Your task to perform on an android device: Install the Yahoo app Image 0: 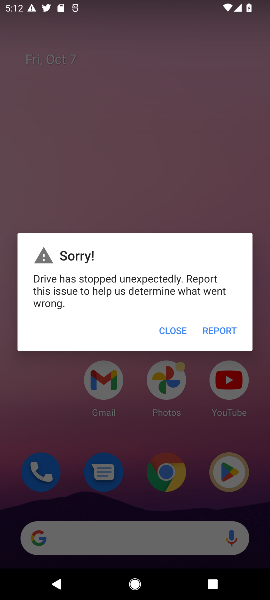
Step 0: click (170, 327)
Your task to perform on an android device: Install the Yahoo app Image 1: 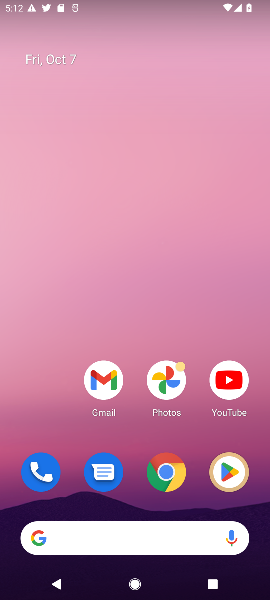
Step 1: click (226, 475)
Your task to perform on an android device: Install the Yahoo app Image 2: 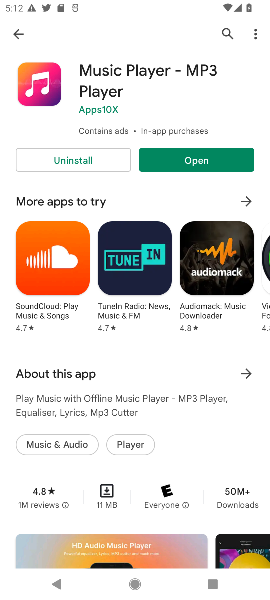
Step 2: click (18, 32)
Your task to perform on an android device: Install the Yahoo app Image 3: 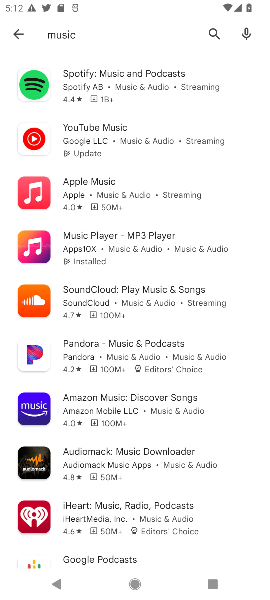
Step 3: click (213, 33)
Your task to perform on an android device: Install the Yahoo app Image 4: 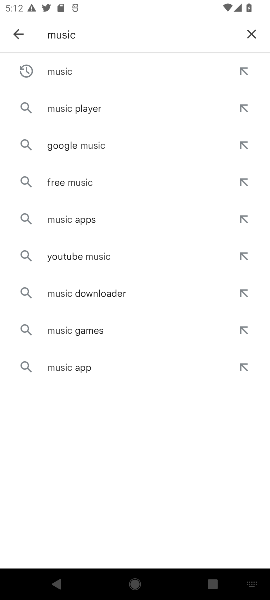
Step 4: click (250, 34)
Your task to perform on an android device: Install the Yahoo app Image 5: 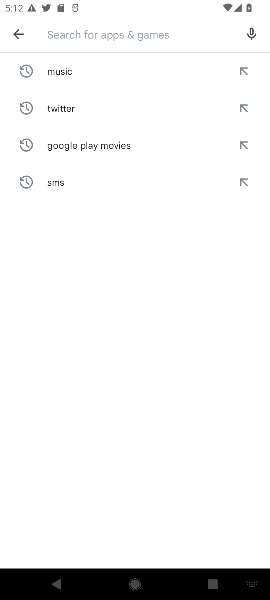
Step 5: type "yahoo"
Your task to perform on an android device: Install the Yahoo app Image 6: 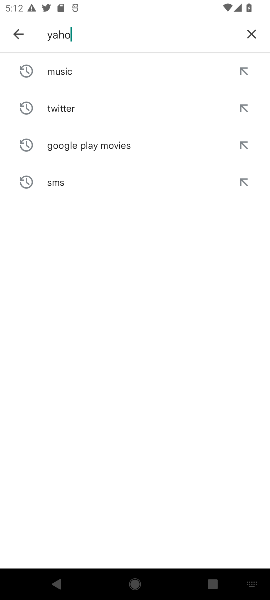
Step 6: type ""
Your task to perform on an android device: Install the Yahoo app Image 7: 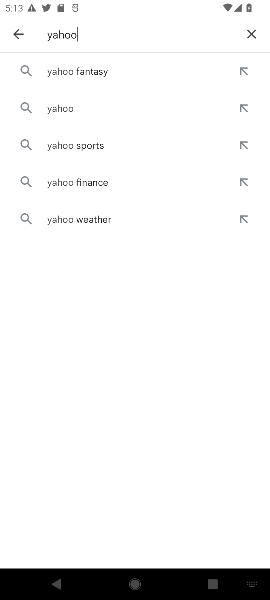
Step 7: click (79, 115)
Your task to perform on an android device: Install the Yahoo app Image 8: 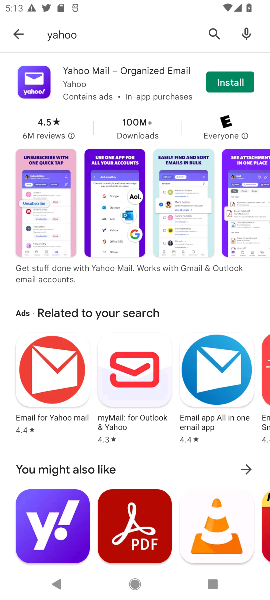
Step 8: click (238, 84)
Your task to perform on an android device: Install the Yahoo app Image 9: 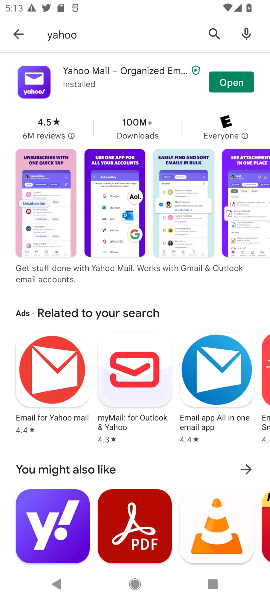
Step 9: task complete